Your task to perform on an android device: toggle translation in the chrome app Image 0: 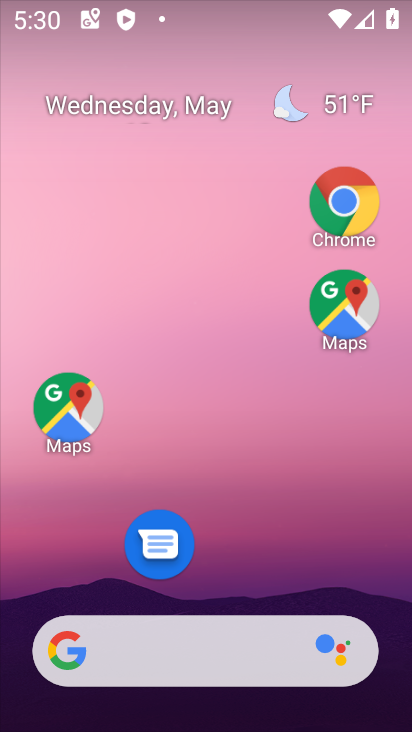
Step 0: drag from (213, 565) to (237, 163)
Your task to perform on an android device: toggle translation in the chrome app Image 1: 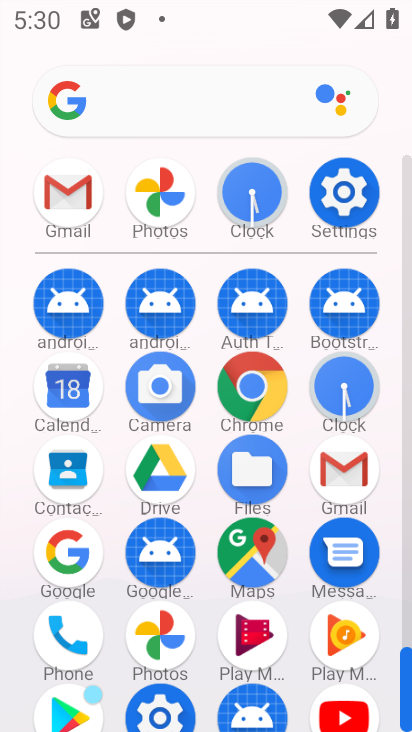
Step 1: click (253, 391)
Your task to perform on an android device: toggle translation in the chrome app Image 2: 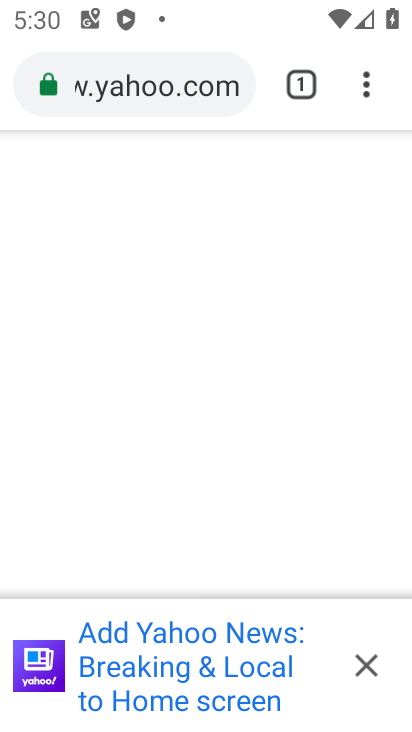
Step 2: click (363, 92)
Your task to perform on an android device: toggle translation in the chrome app Image 3: 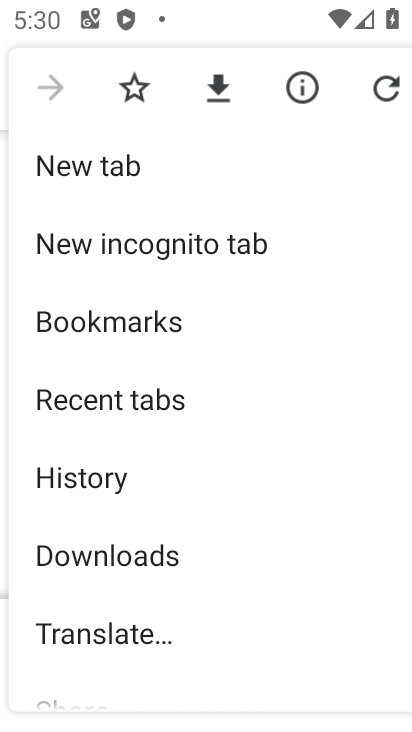
Step 3: drag from (134, 551) to (151, 154)
Your task to perform on an android device: toggle translation in the chrome app Image 4: 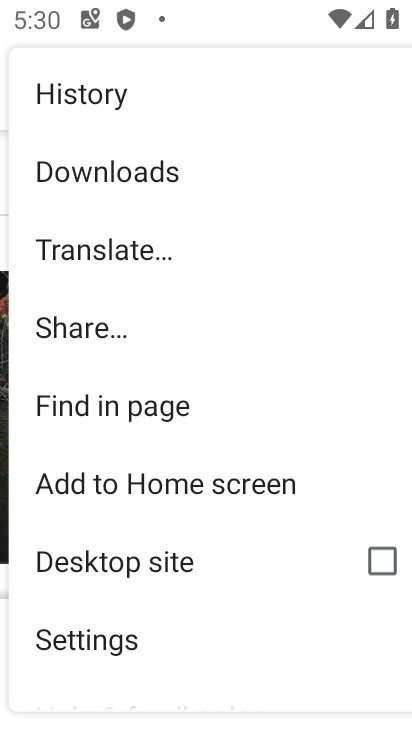
Step 4: click (107, 616)
Your task to perform on an android device: toggle translation in the chrome app Image 5: 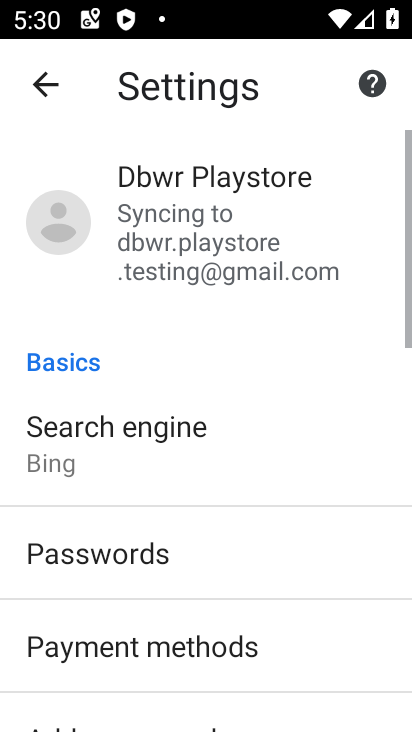
Step 5: drag from (122, 591) to (166, 57)
Your task to perform on an android device: toggle translation in the chrome app Image 6: 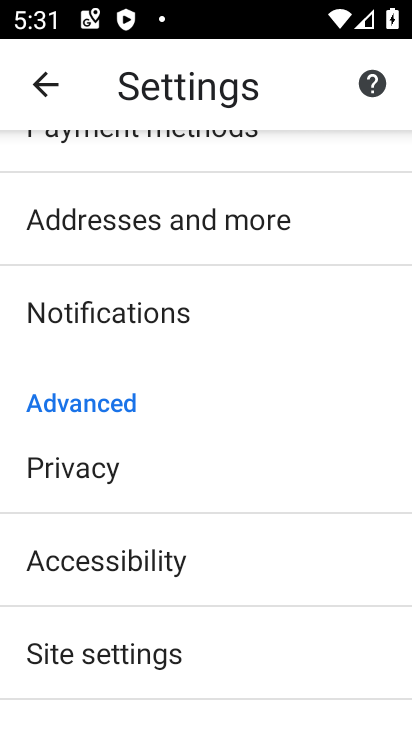
Step 6: drag from (122, 680) to (143, 346)
Your task to perform on an android device: toggle translation in the chrome app Image 7: 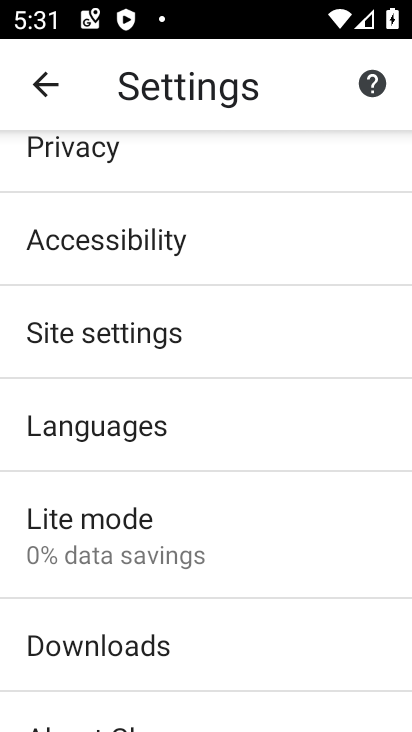
Step 7: click (140, 413)
Your task to perform on an android device: toggle translation in the chrome app Image 8: 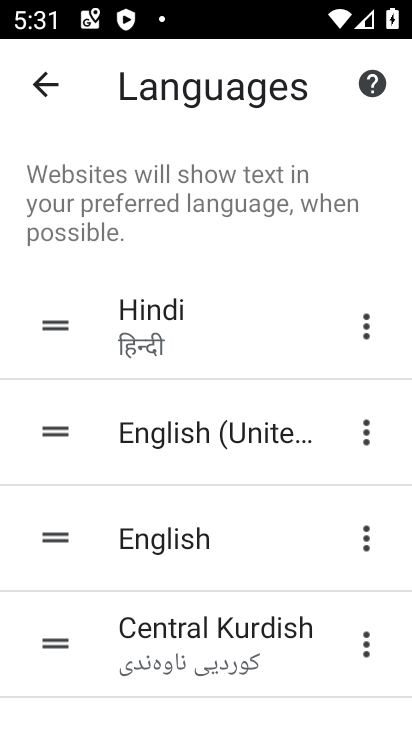
Step 8: drag from (246, 513) to (239, 261)
Your task to perform on an android device: toggle translation in the chrome app Image 9: 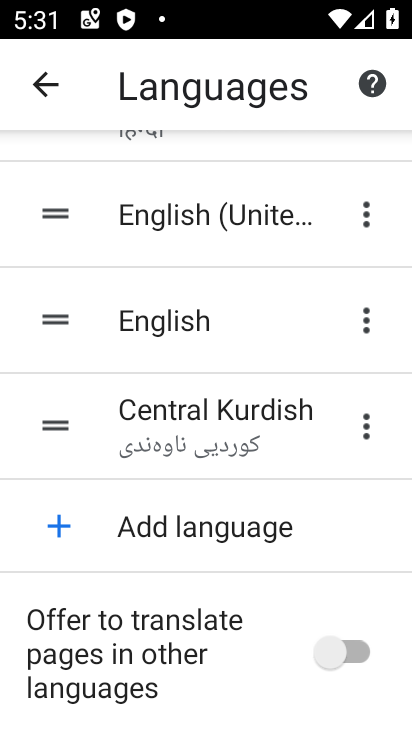
Step 9: drag from (220, 622) to (183, 226)
Your task to perform on an android device: toggle translation in the chrome app Image 10: 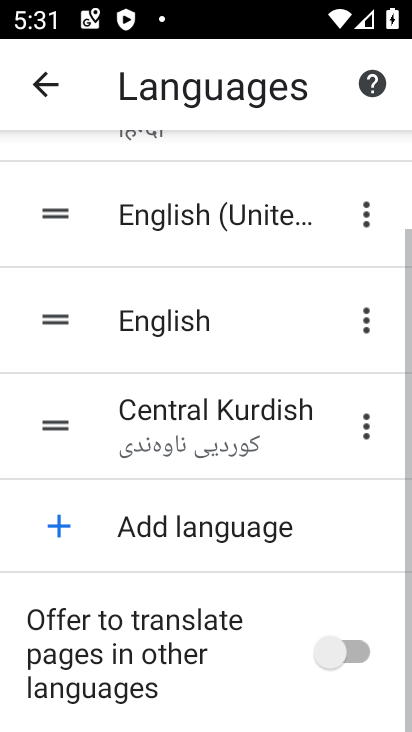
Step 10: drag from (203, 670) to (189, 267)
Your task to perform on an android device: toggle translation in the chrome app Image 11: 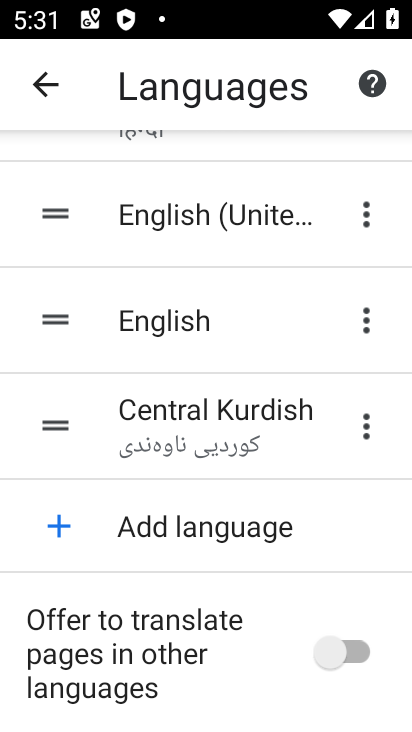
Step 11: click (351, 666)
Your task to perform on an android device: toggle translation in the chrome app Image 12: 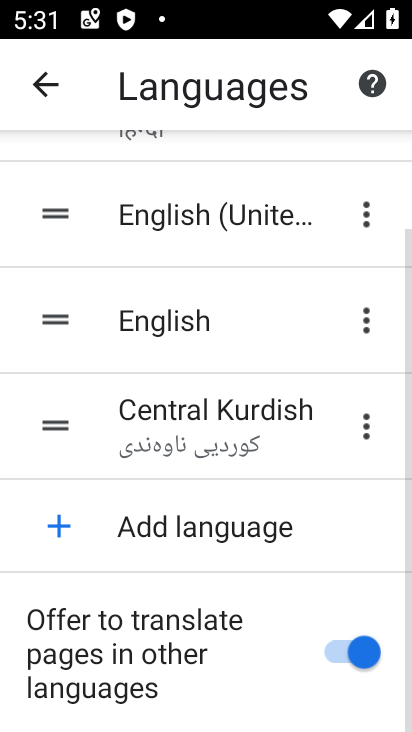
Step 12: task complete